Your task to perform on an android device: Open location settings Image 0: 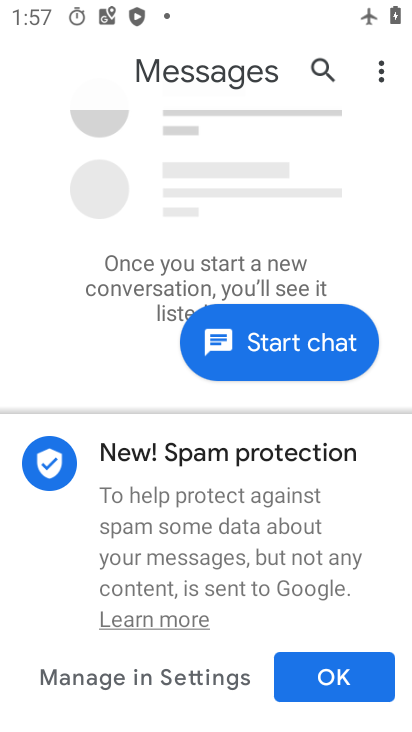
Step 0: press home button
Your task to perform on an android device: Open location settings Image 1: 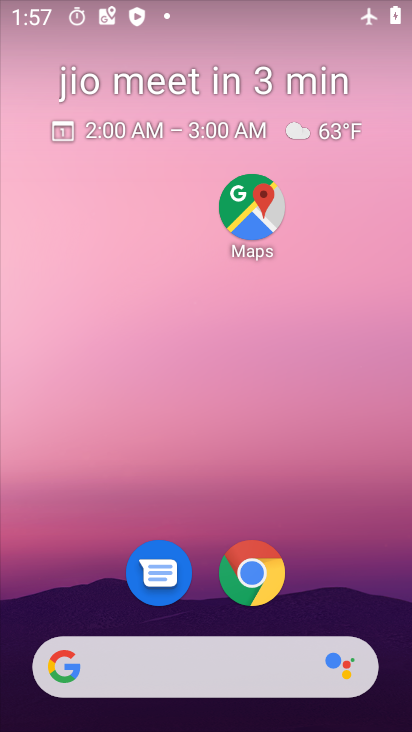
Step 1: drag from (194, 538) to (205, 72)
Your task to perform on an android device: Open location settings Image 2: 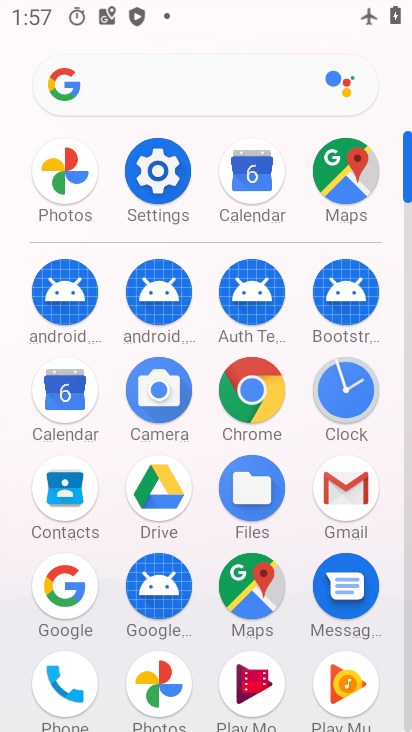
Step 2: drag from (195, 244) to (225, 168)
Your task to perform on an android device: Open location settings Image 3: 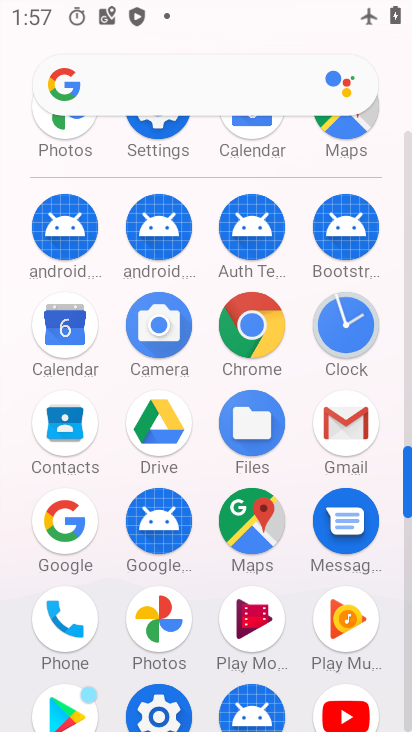
Step 3: click (160, 134)
Your task to perform on an android device: Open location settings Image 4: 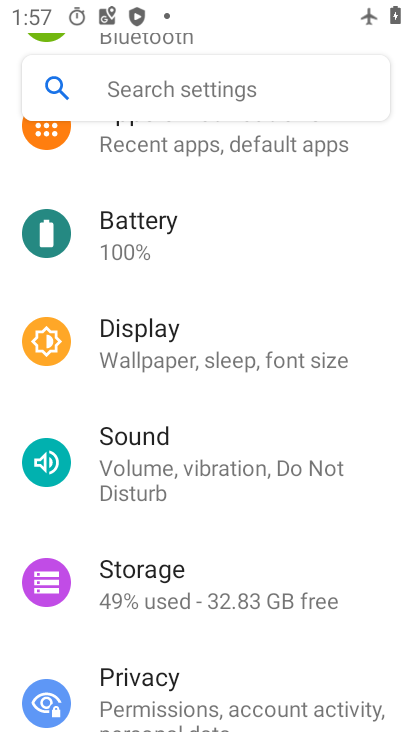
Step 4: drag from (222, 509) to (170, 71)
Your task to perform on an android device: Open location settings Image 5: 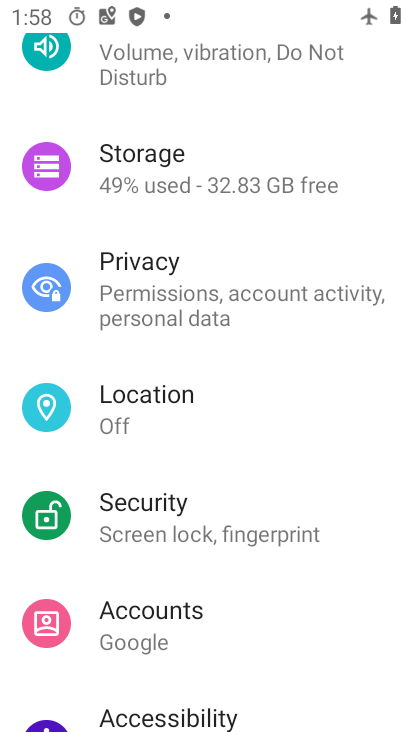
Step 5: click (185, 422)
Your task to perform on an android device: Open location settings Image 6: 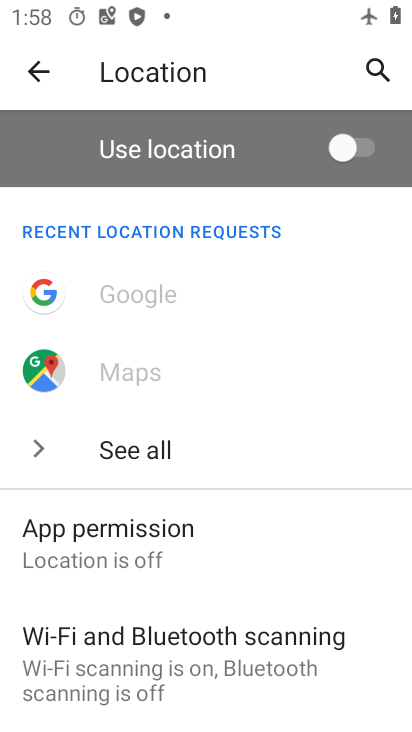
Step 6: task complete